Your task to perform on an android device: open app "Venmo" Image 0: 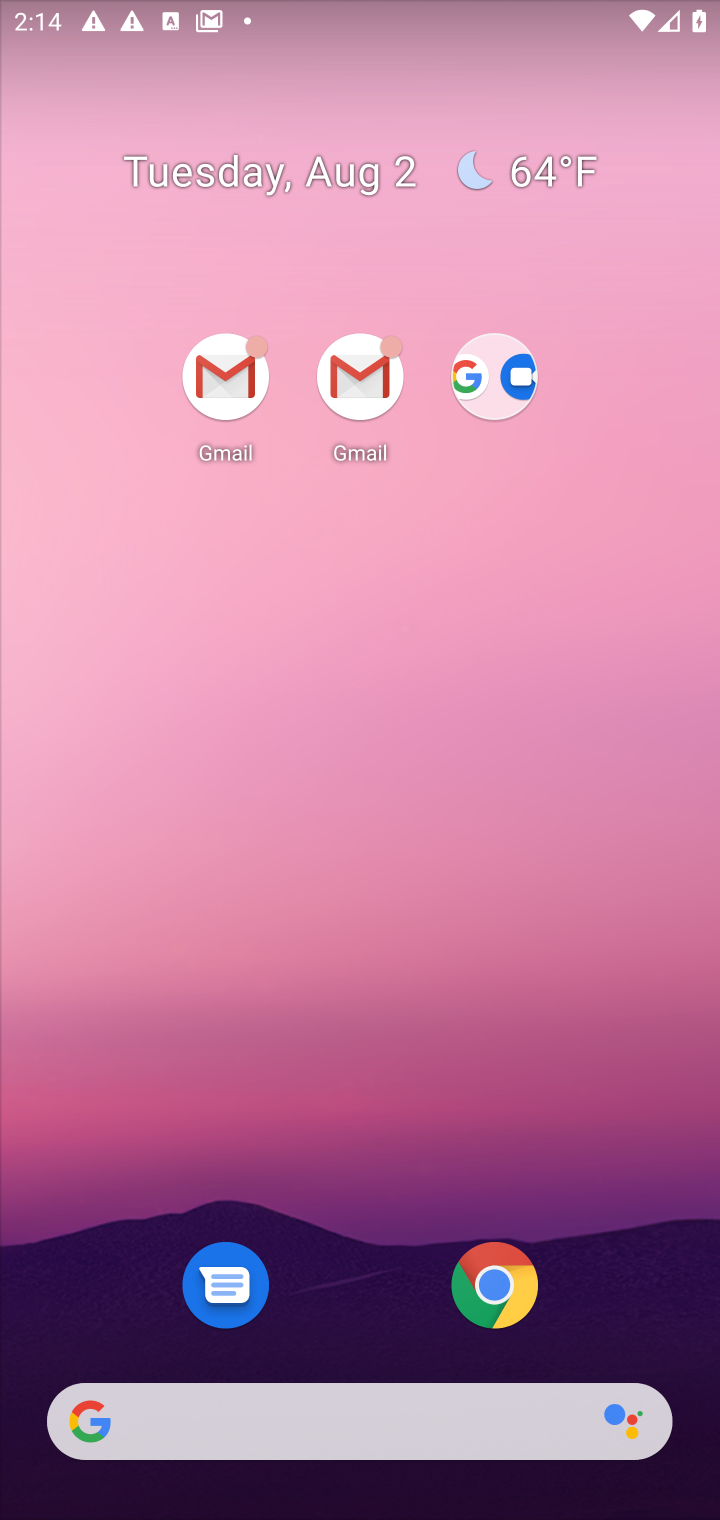
Step 0: drag from (336, 1137) to (370, 108)
Your task to perform on an android device: open app "Venmo" Image 1: 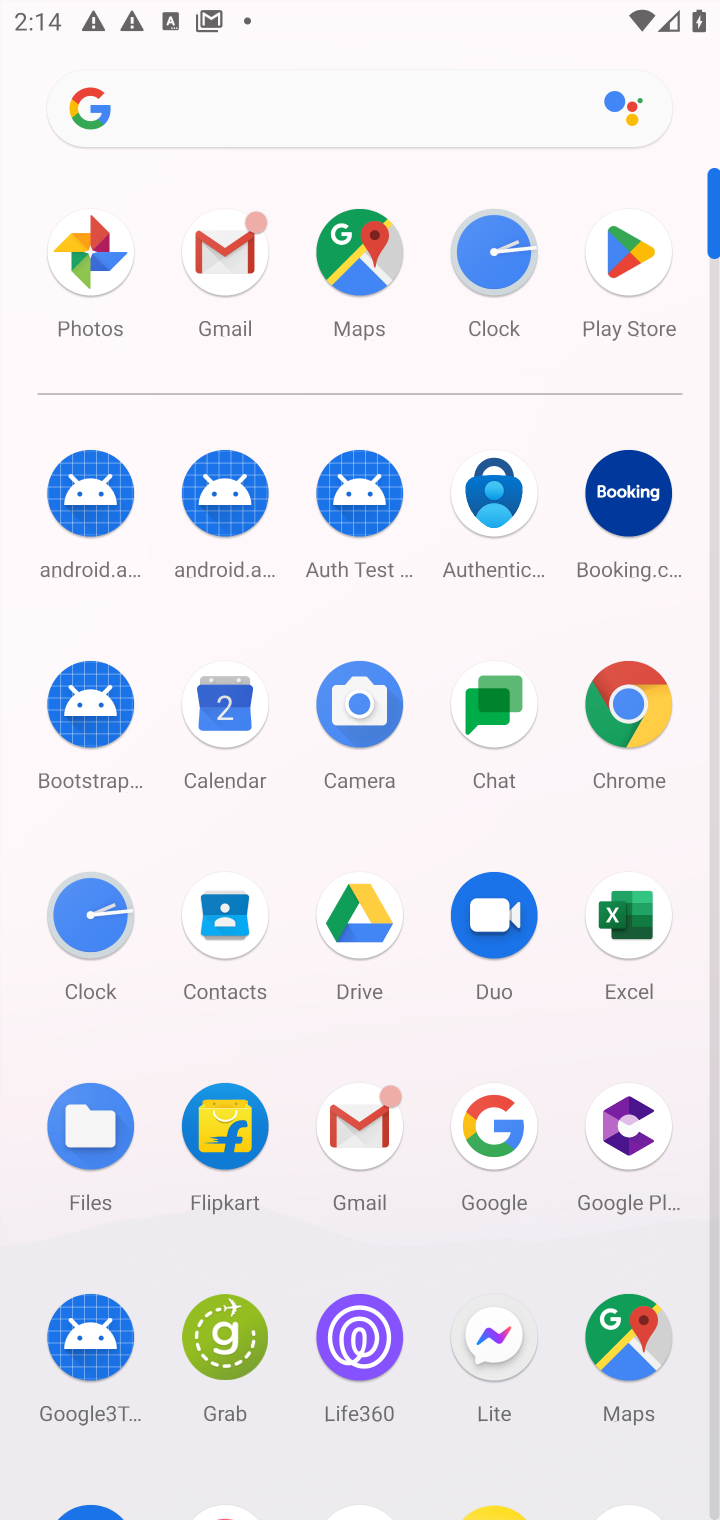
Step 1: drag from (419, 948) to (442, 307)
Your task to perform on an android device: open app "Venmo" Image 2: 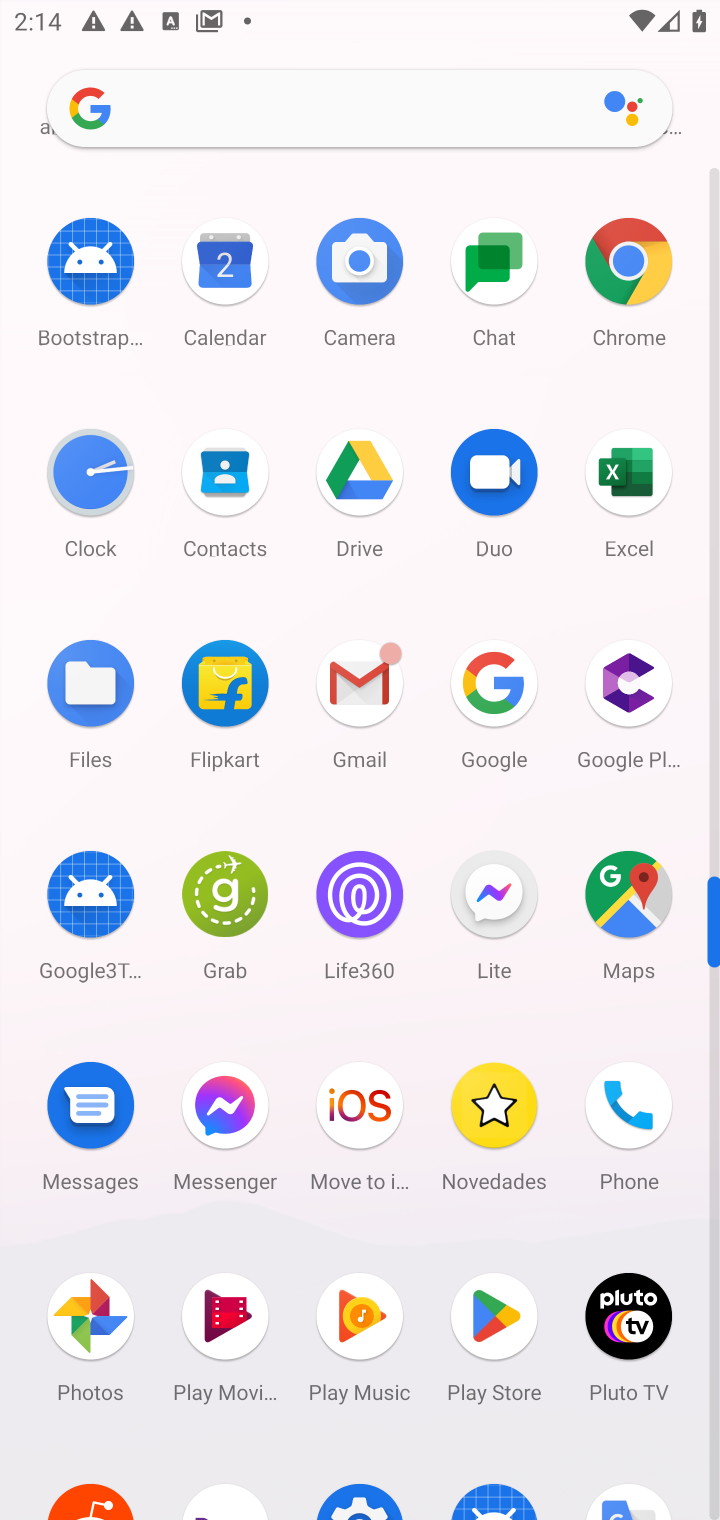
Step 2: click (483, 1320)
Your task to perform on an android device: open app "Venmo" Image 3: 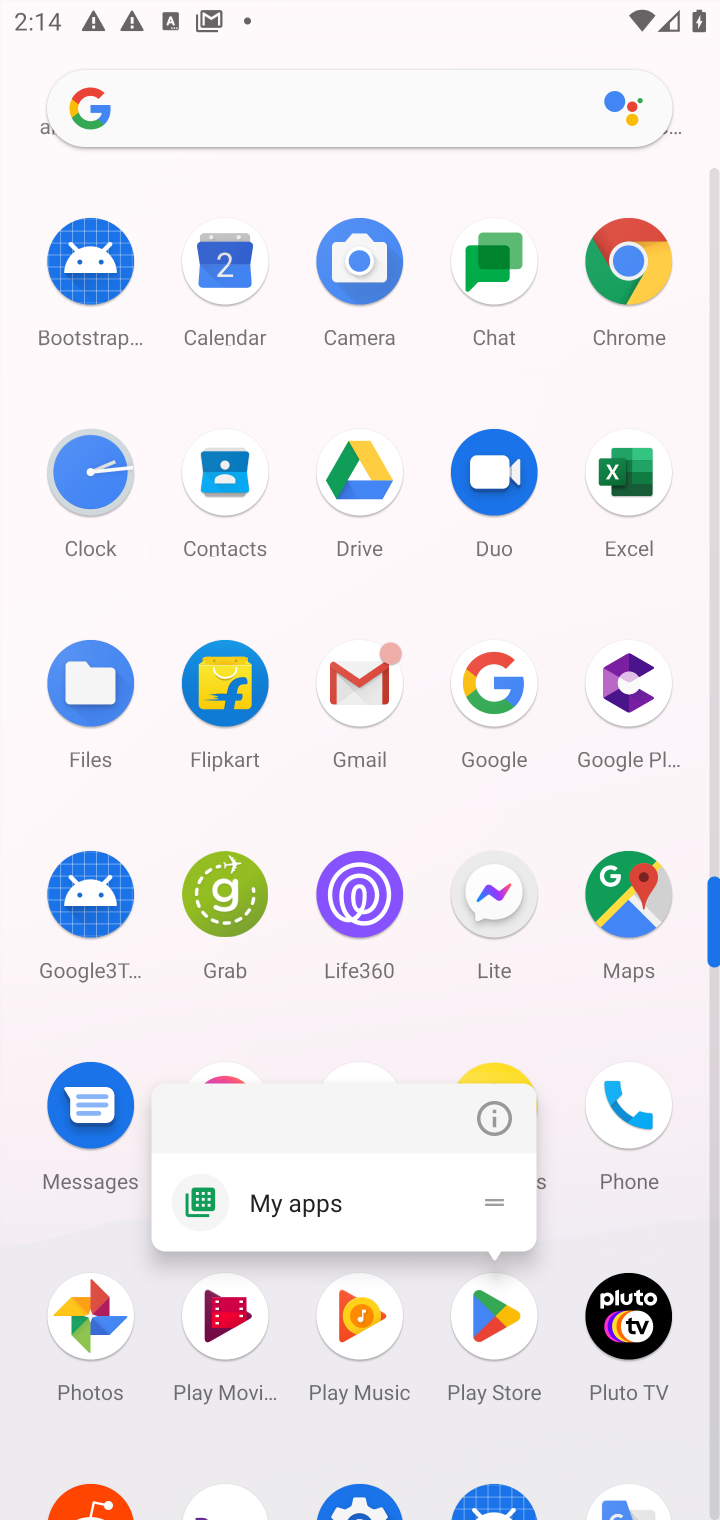
Step 3: click (484, 1313)
Your task to perform on an android device: open app "Venmo" Image 4: 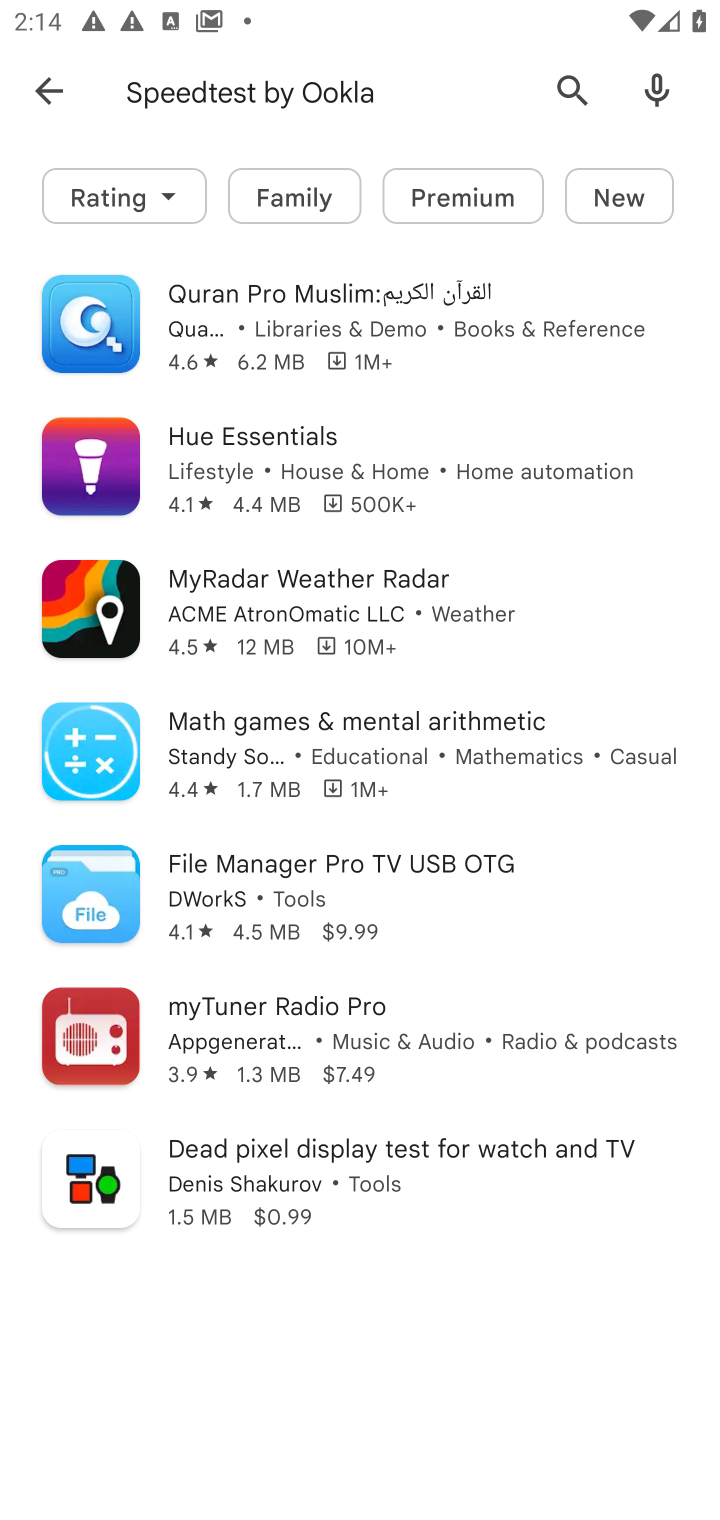
Step 4: click (446, 96)
Your task to perform on an android device: open app "Venmo" Image 5: 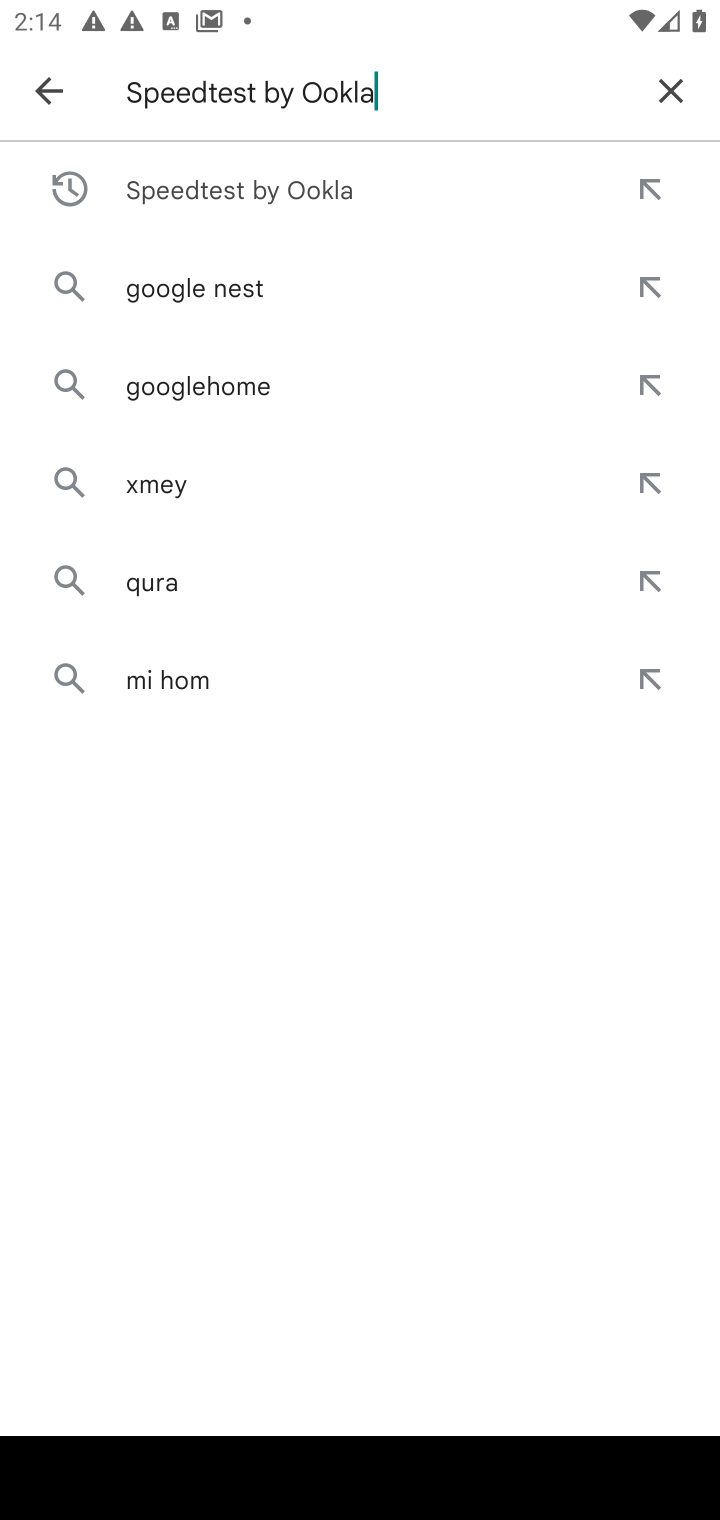
Step 5: click (675, 74)
Your task to perform on an android device: open app "Venmo" Image 6: 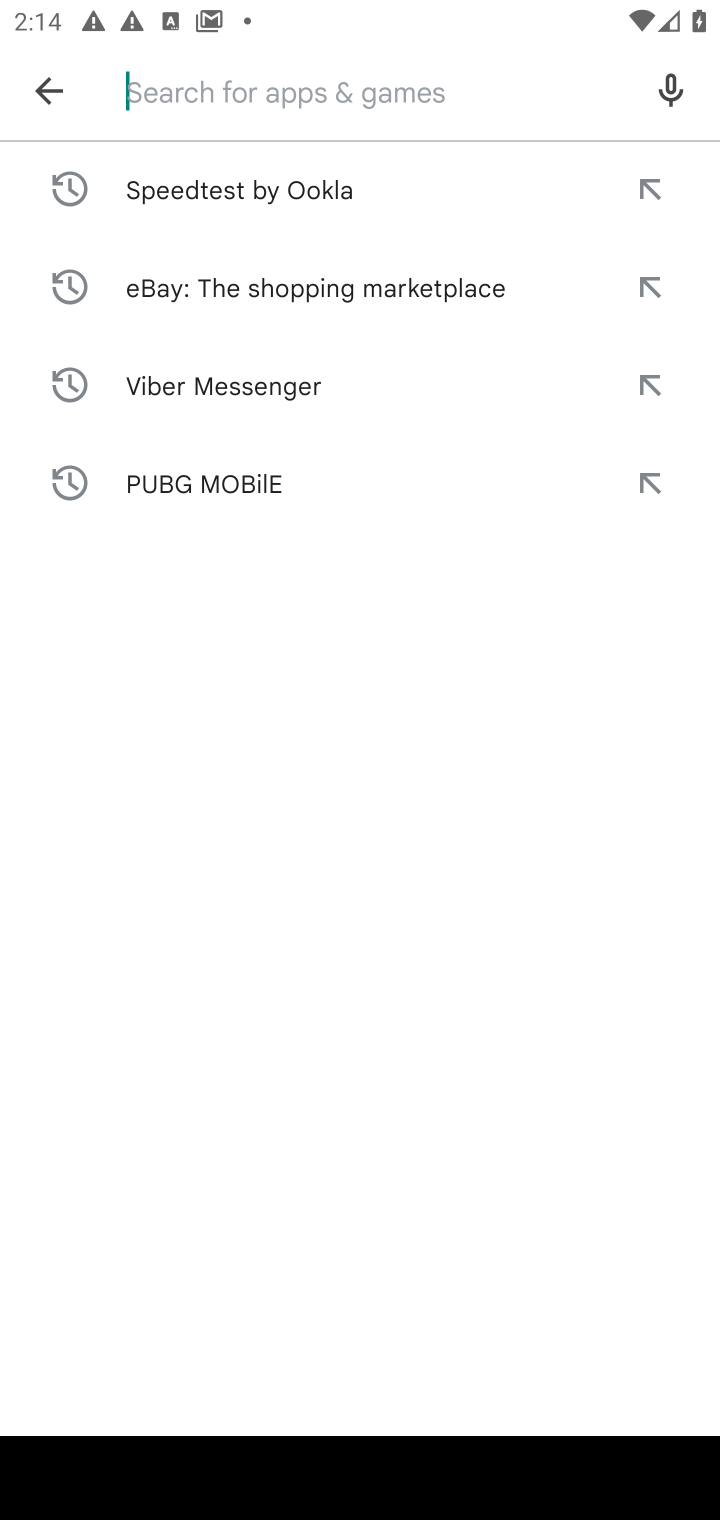
Step 6: type "Venmo"
Your task to perform on an android device: open app "Venmo" Image 7: 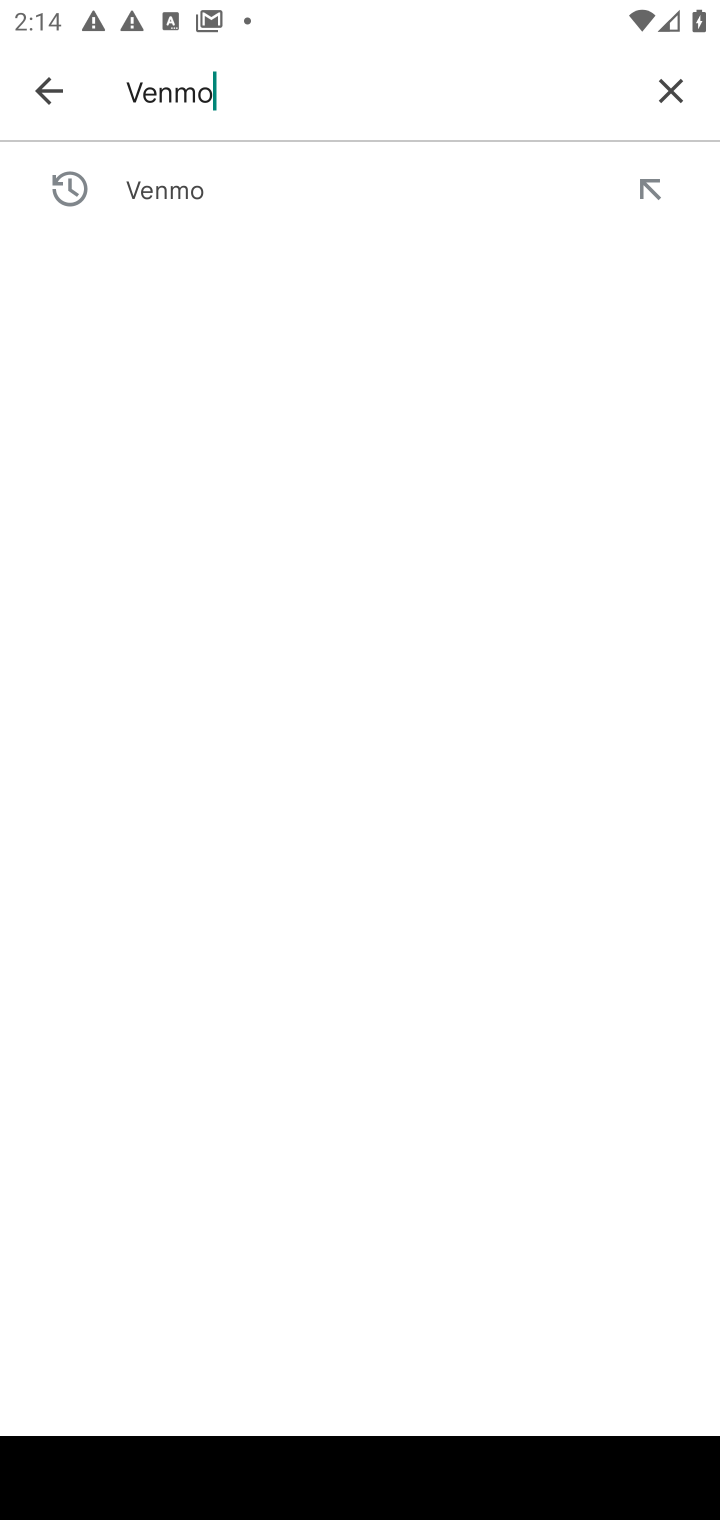
Step 7: press enter
Your task to perform on an android device: open app "Venmo" Image 8: 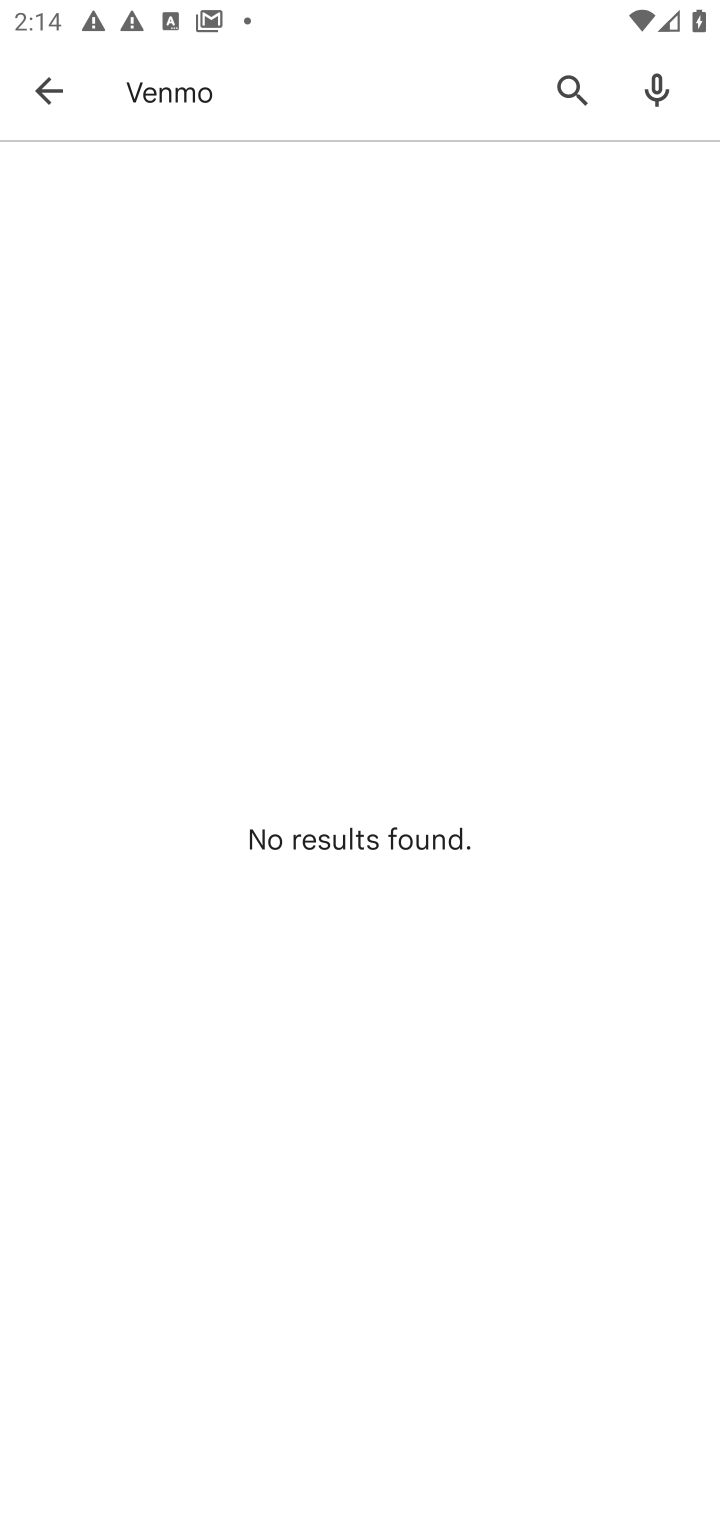
Step 8: task complete